Your task to perform on an android device: empty trash in google photos Image 0: 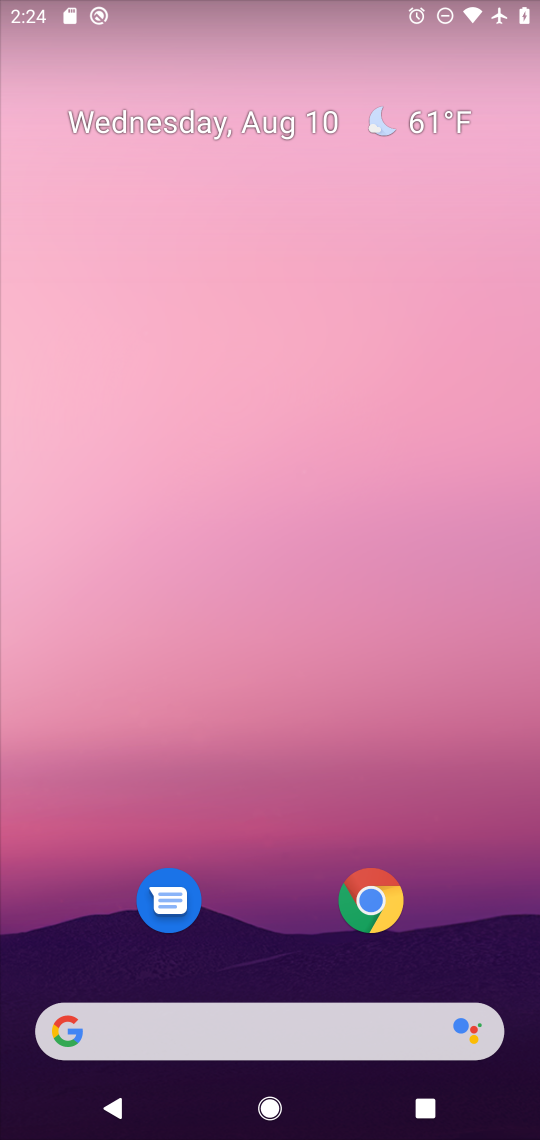
Step 0: drag from (300, 856) to (404, 16)
Your task to perform on an android device: empty trash in google photos Image 1: 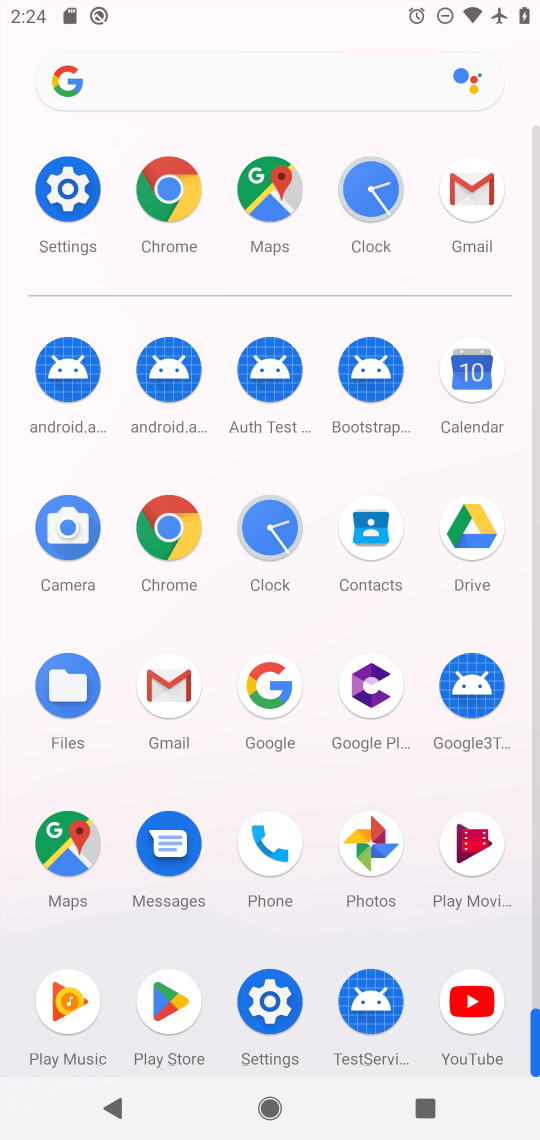
Step 1: click (382, 849)
Your task to perform on an android device: empty trash in google photos Image 2: 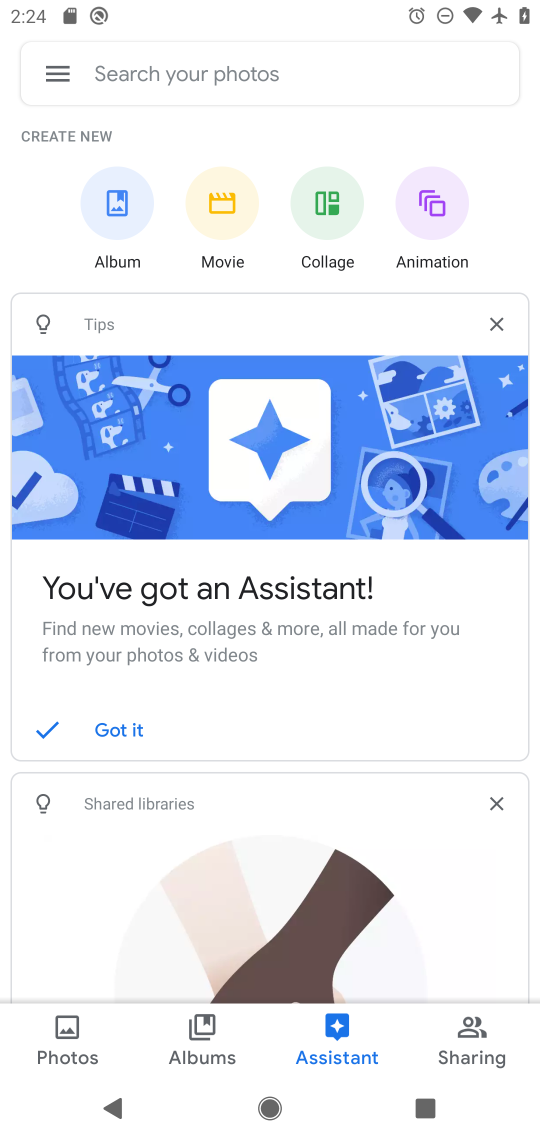
Step 2: click (66, 75)
Your task to perform on an android device: empty trash in google photos Image 3: 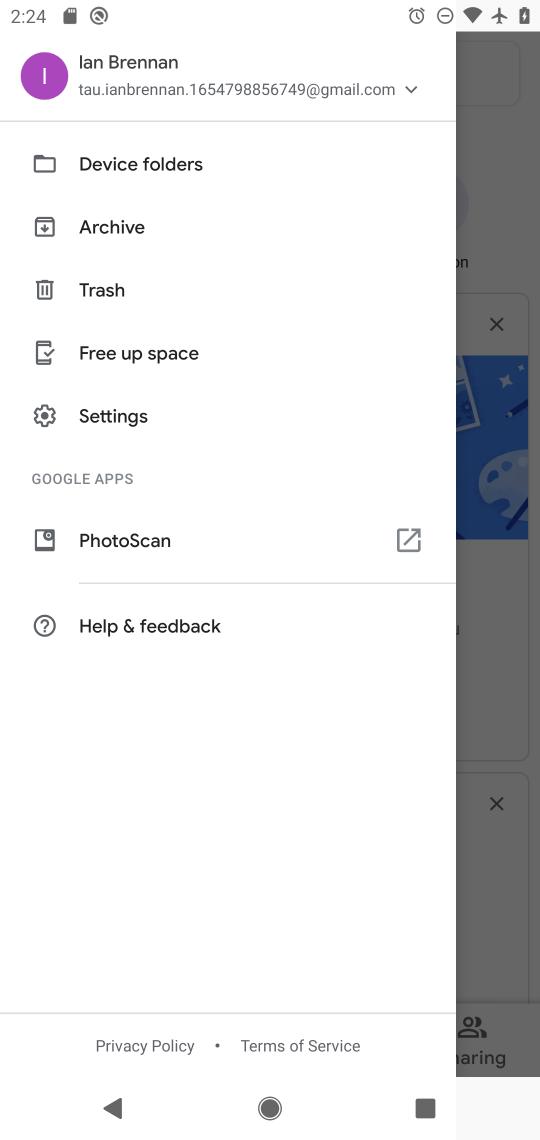
Step 3: click (74, 278)
Your task to perform on an android device: empty trash in google photos Image 4: 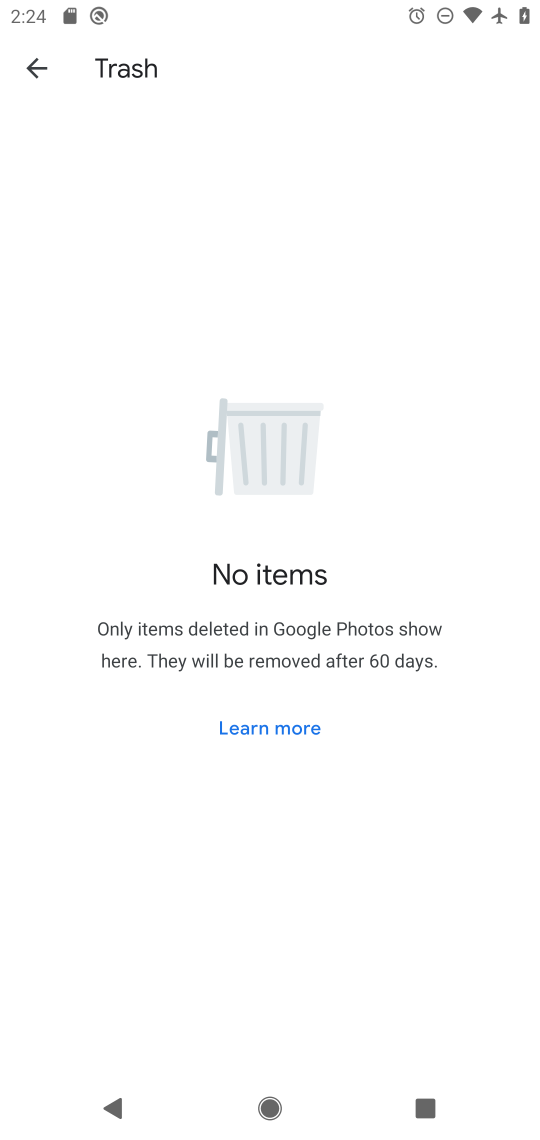
Step 4: task complete